Your task to perform on an android device: turn on the 12-hour format for clock Image 0: 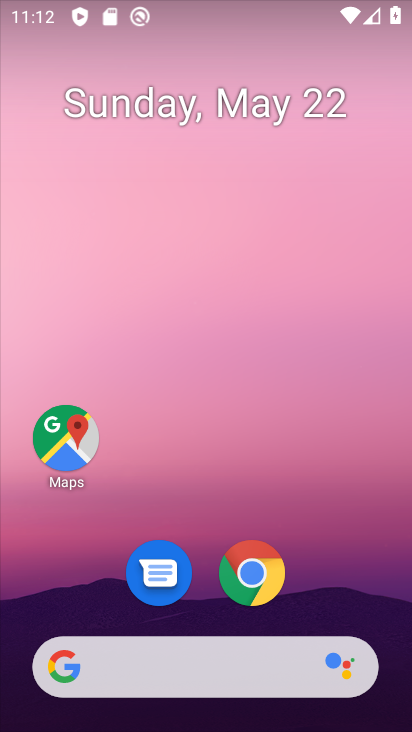
Step 0: drag from (380, 603) to (360, 244)
Your task to perform on an android device: turn on the 12-hour format for clock Image 1: 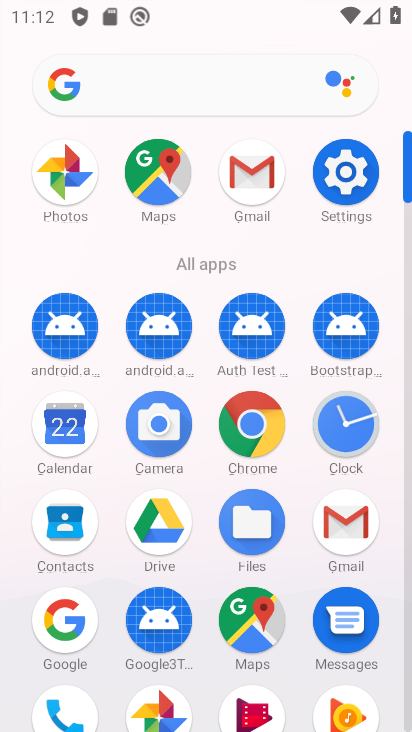
Step 1: click (336, 445)
Your task to perform on an android device: turn on the 12-hour format for clock Image 2: 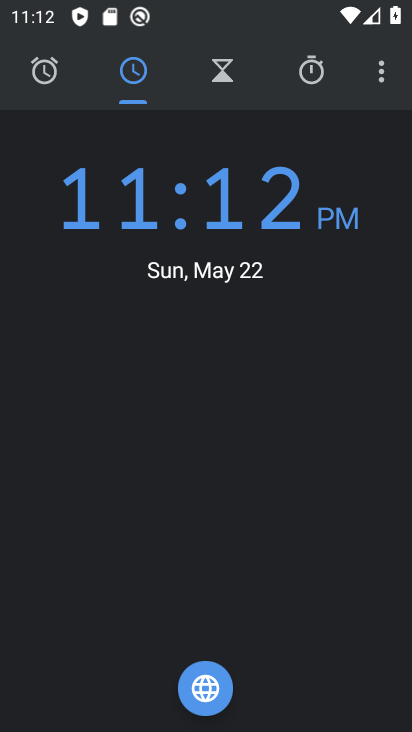
Step 2: click (378, 80)
Your task to perform on an android device: turn on the 12-hour format for clock Image 3: 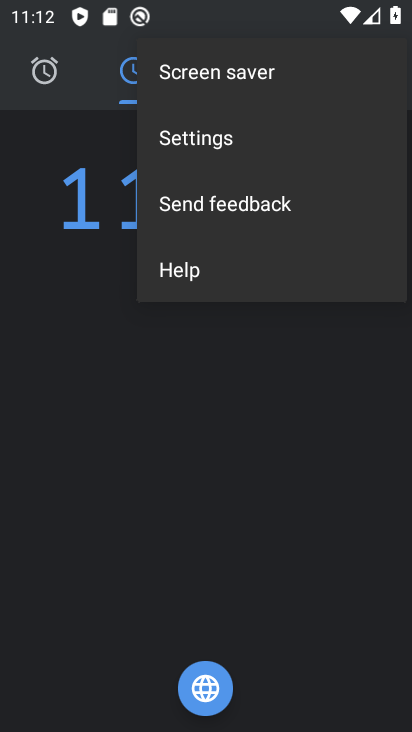
Step 3: click (235, 139)
Your task to perform on an android device: turn on the 12-hour format for clock Image 4: 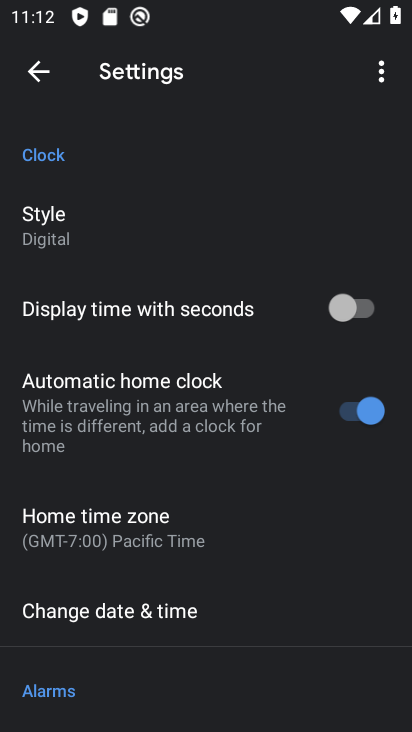
Step 4: drag from (289, 598) to (276, 408)
Your task to perform on an android device: turn on the 12-hour format for clock Image 5: 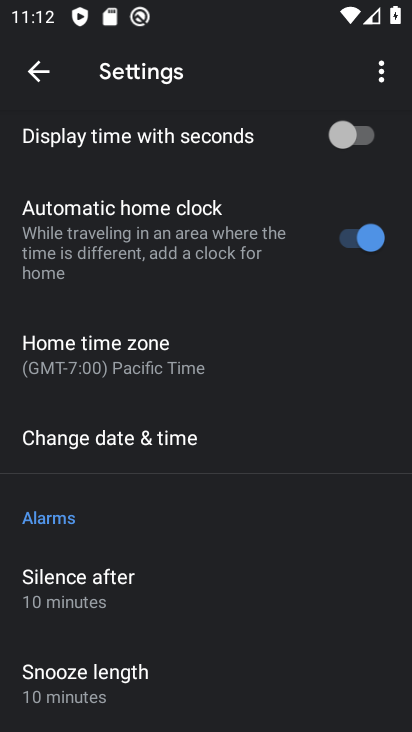
Step 5: drag from (291, 606) to (275, 420)
Your task to perform on an android device: turn on the 12-hour format for clock Image 6: 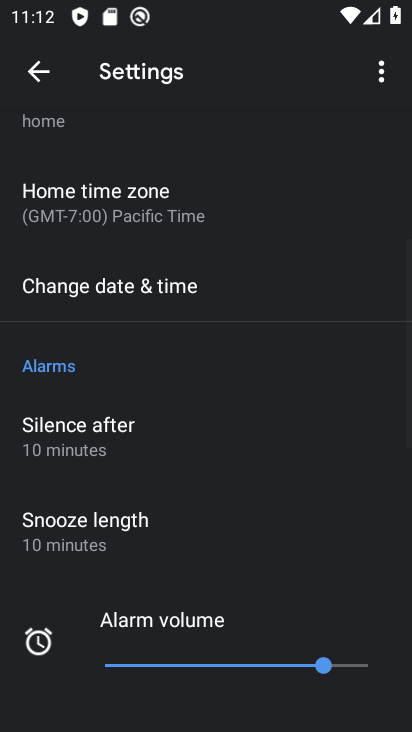
Step 6: drag from (303, 603) to (296, 478)
Your task to perform on an android device: turn on the 12-hour format for clock Image 7: 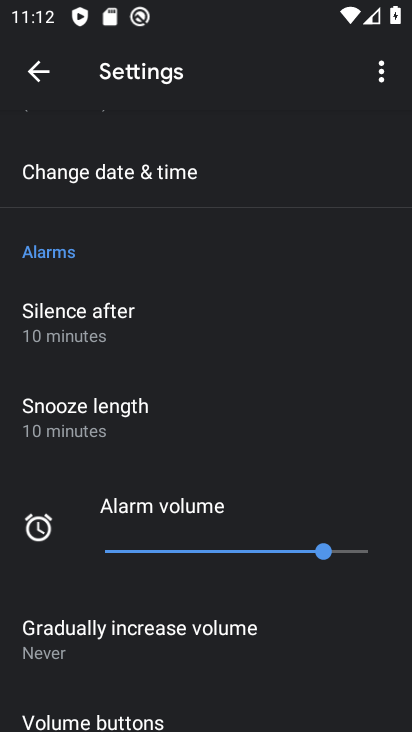
Step 7: drag from (288, 634) to (267, 460)
Your task to perform on an android device: turn on the 12-hour format for clock Image 8: 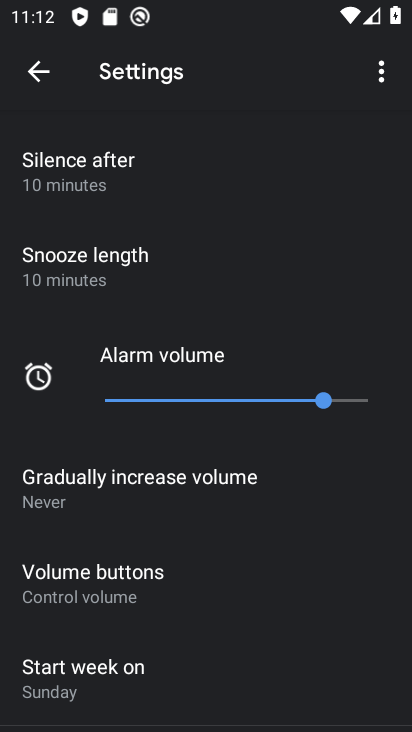
Step 8: drag from (284, 607) to (279, 465)
Your task to perform on an android device: turn on the 12-hour format for clock Image 9: 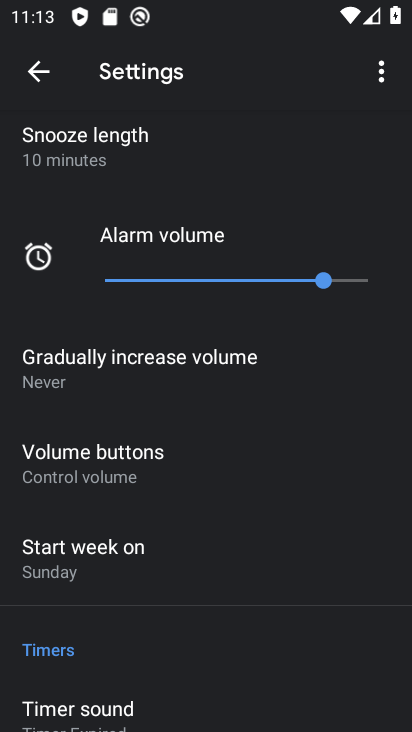
Step 9: drag from (306, 590) to (293, 406)
Your task to perform on an android device: turn on the 12-hour format for clock Image 10: 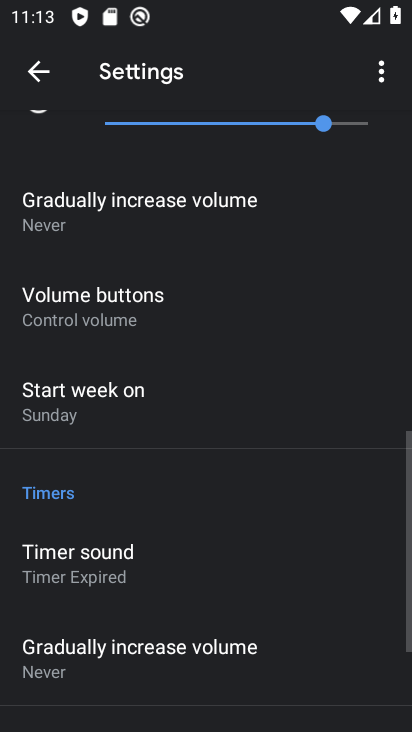
Step 10: drag from (330, 622) to (328, 430)
Your task to perform on an android device: turn on the 12-hour format for clock Image 11: 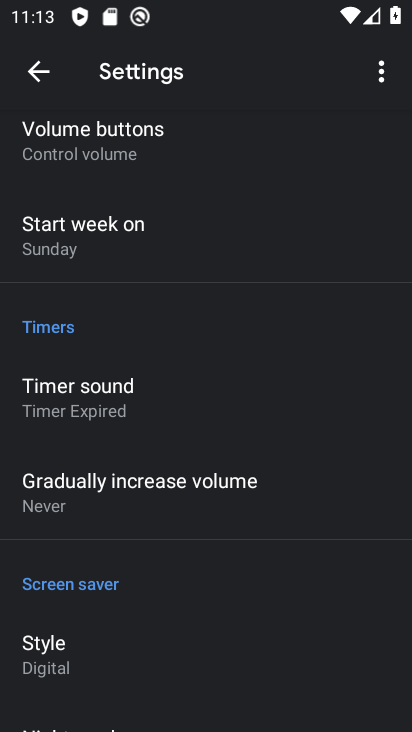
Step 11: drag from (335, 623) to (320, 472)
Your task to perform on an android device: turn on the 12-hour format for clock Image 12: 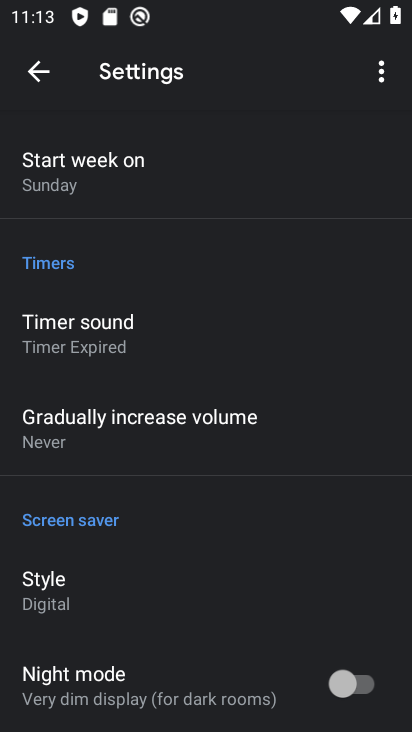
Step 12: drag from (331, 595) to (332, 437)
Your task to perform on an android device: turn on the 12-hour format for clock Image 13: 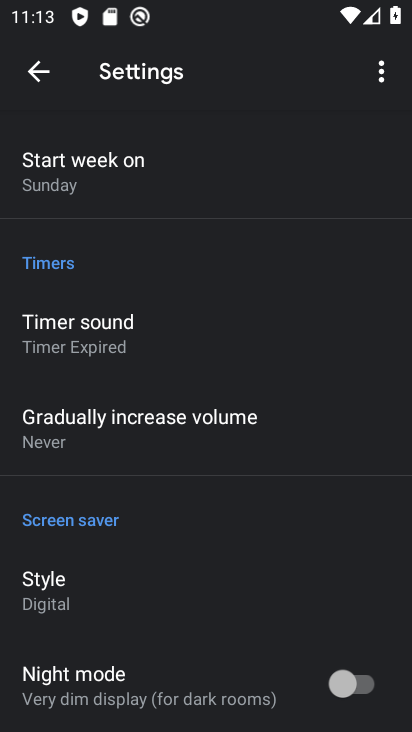
Step 13: drag from (292, 623) to (289, 455)
Your task to perform on an android device: turn on the 12-hour format for clock Image 14: 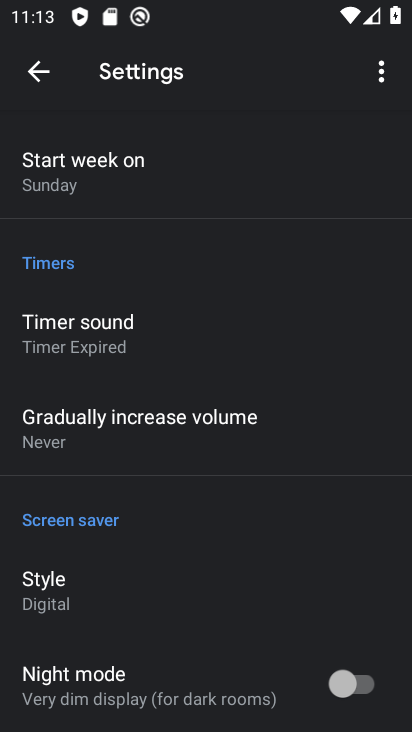
Step 14: drag from (275, 623) to (271, 488)
Your task to perform on an android device: turn on the 12-hour format for clock Image 15: 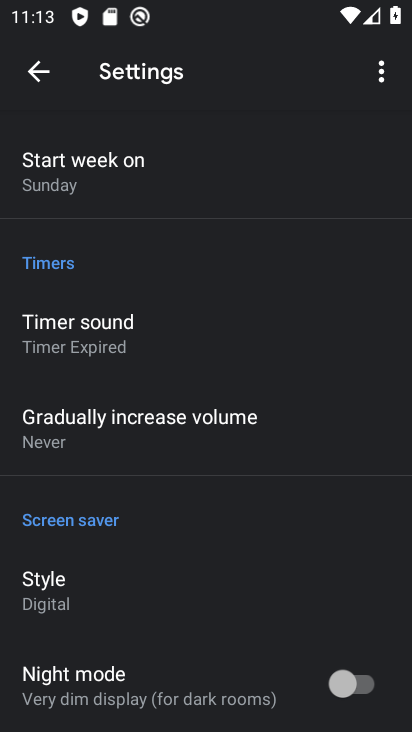
Step 15: drag from (219, 306) to (223, 395)
Your task to perform on an android device: turn on the 12-hour format for clock Image 16: 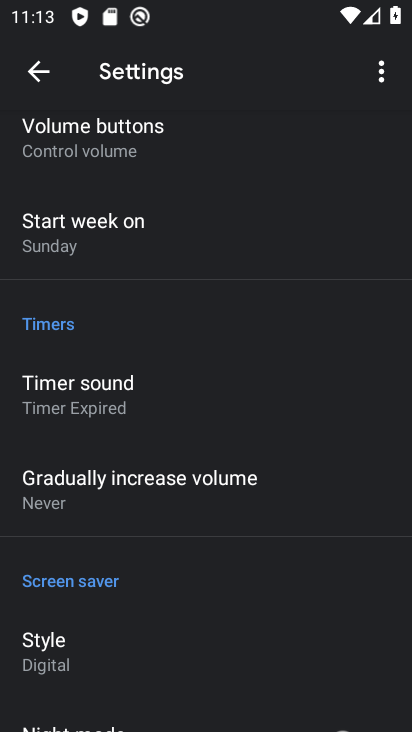
Step 16: drag from (225, 283) to (252, 447)
Your task to perform on an android device: turn on the 12-hour format for clock Image 17: 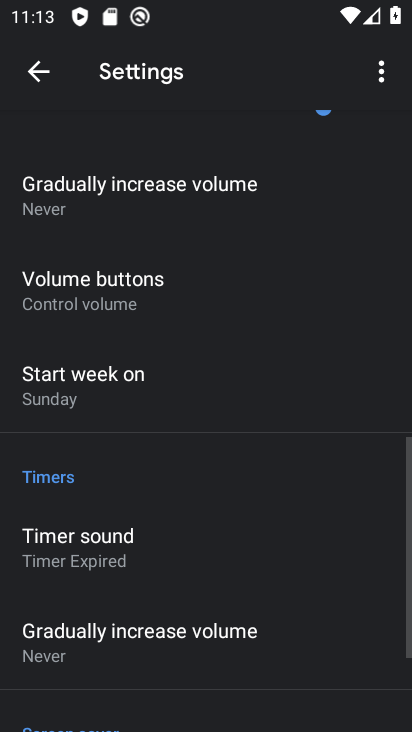
Step 17: drag from (248, 256) to (274, 439)
Your task to perform on an android device: turn on the 12-hour format for clock Image 18: 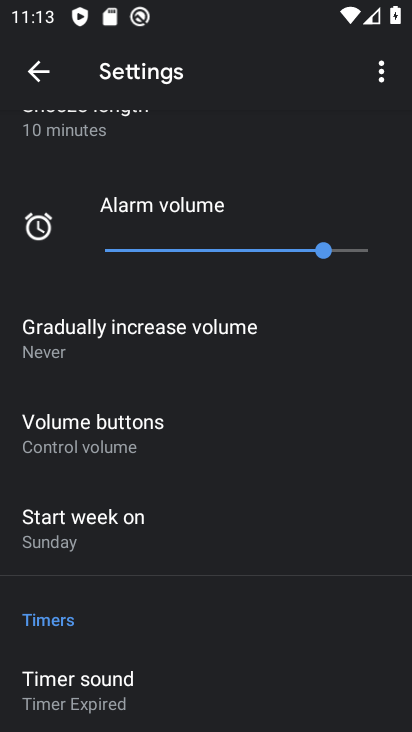
Step 18: drag from (229, 213) to (243, 364)
Your task to perform on an android device: turn on the 12-hour format for clock Image 19: 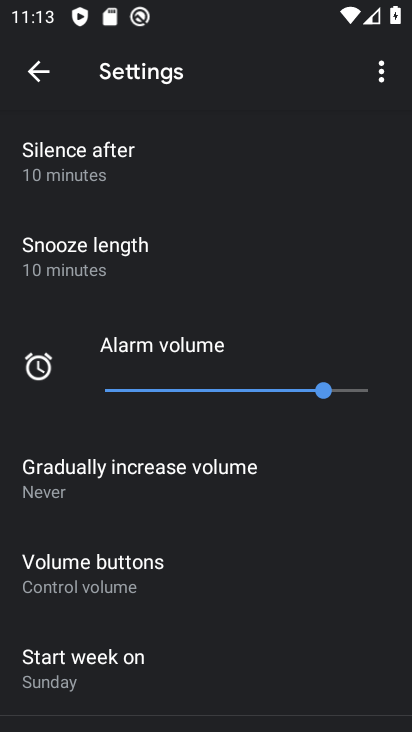
Step 19: drag from (229, 209) to (244, 369)
Your task to perform on an android device: turn on the 12-hour format for clock Image 20: 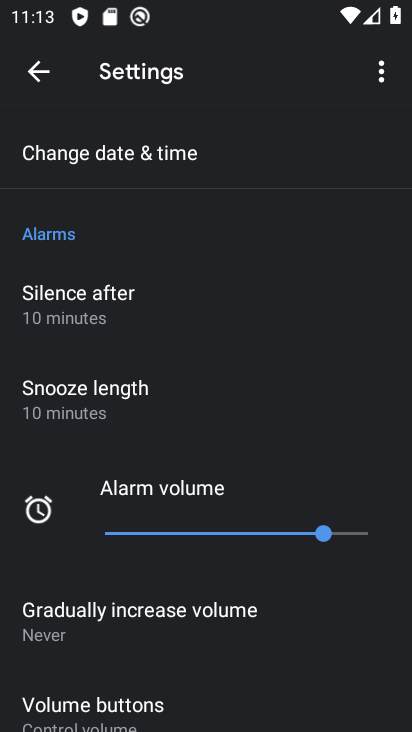
Step 20: drag from (232, 221) to (233, 322)
Your task to perform on an android device: turn on the 12-hour format for clock Image 21: 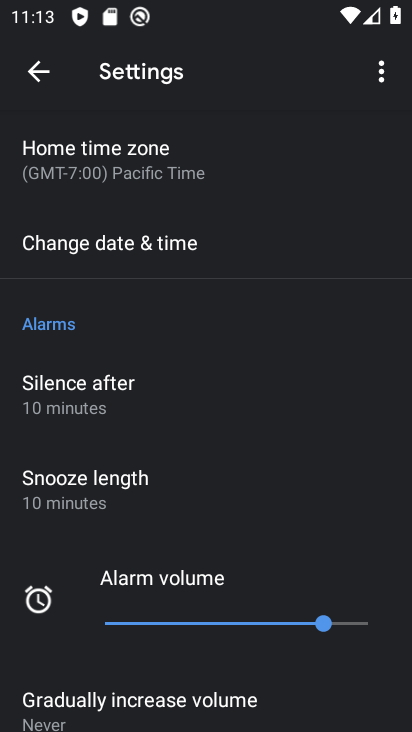
Step 21: click (159, 238)
Your task to perform on an android device: turn on the 12-hour format for clock Image 22: 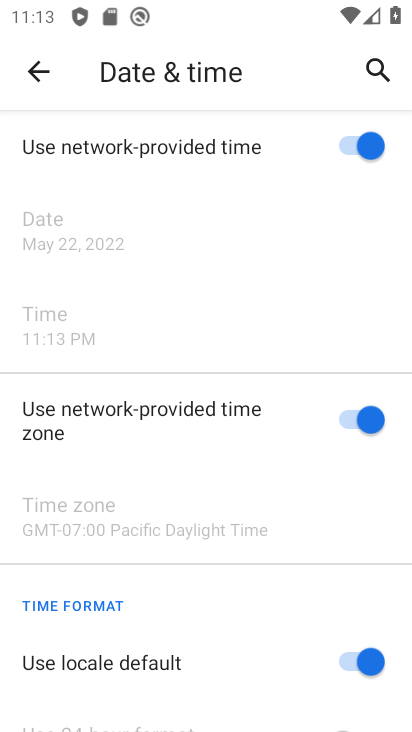
Step 22: task complete